Your task to perform on an android device: open app "Firefox Browser" (install if not already installed), go to login, and select forgot password Image 0: 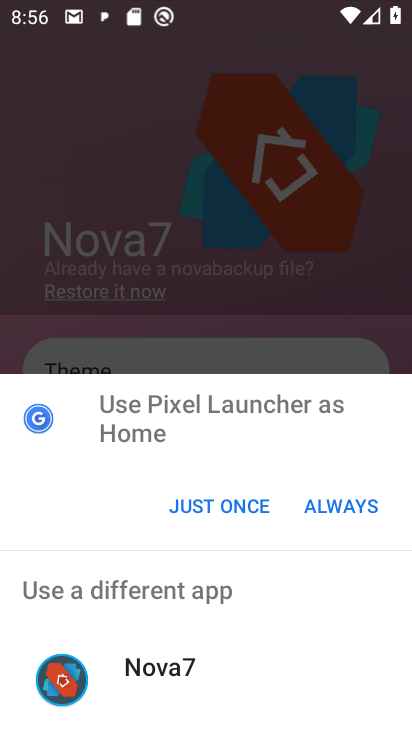
Step 0: click (324, 498)
Your task to perform on an android device: open app "Firefox Browser" (install if not already installed), go to login, and select forgot password Image 1: 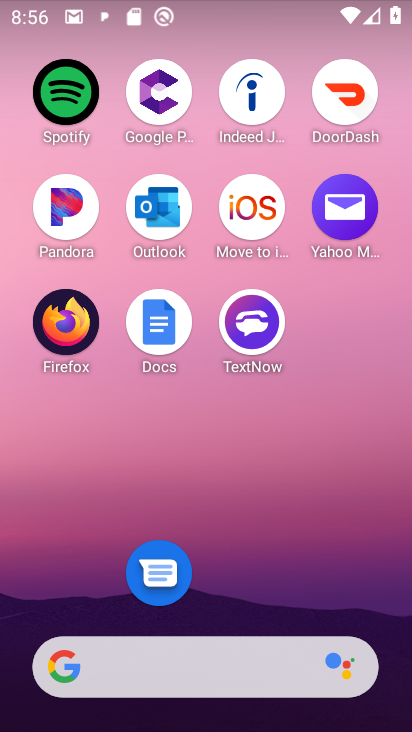
Step 1: click (53, 324)
Your task to perform on an android device: open app "Firefox Browser" (install if not already installed), go to login, and select forgot password Image 2: 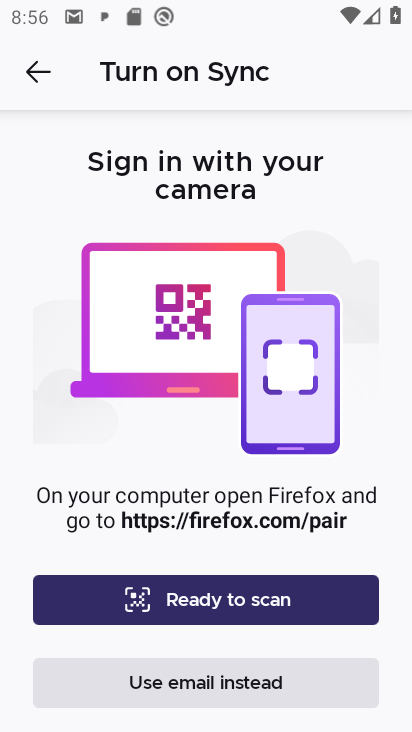
Step 2: click (230, 678)
Your task to perform on an android device: open app "Firefox Browser" (install if not already installed), go to login, and select forgot password Image 3: 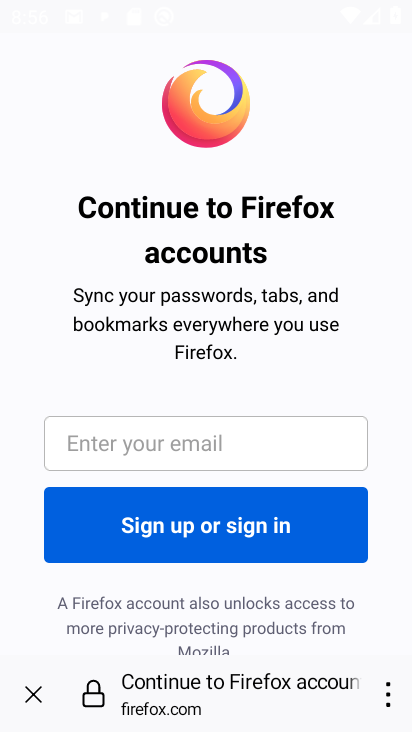
Step 3: drag from (268, 620) to (288, 435)
Your task to perform on an android device: open app "Firefox Browser" (install if not already installed), go to login, and select forgot password Image 4: 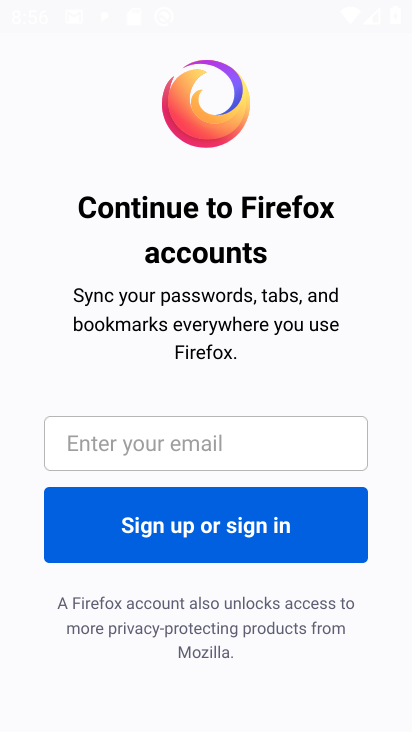
Step 4: click (237, 446)
Your task to perform on an android device: open app "Firefox Browser" (install if not already installed), go to login, and select forgot password Image 5: 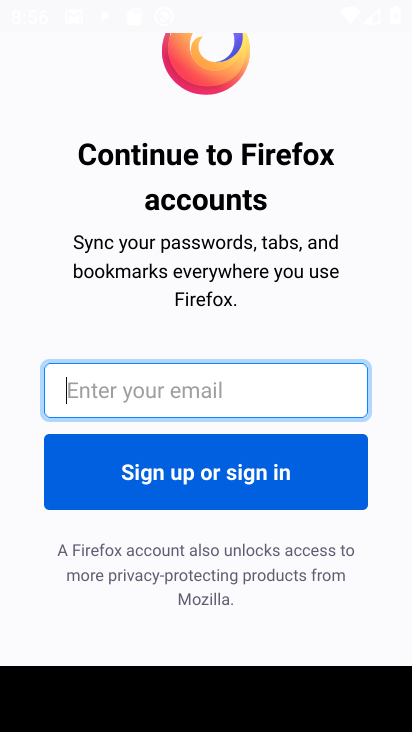
Step 5: task complete